Your task to perform on an android device: Open CNN.com Image 0: 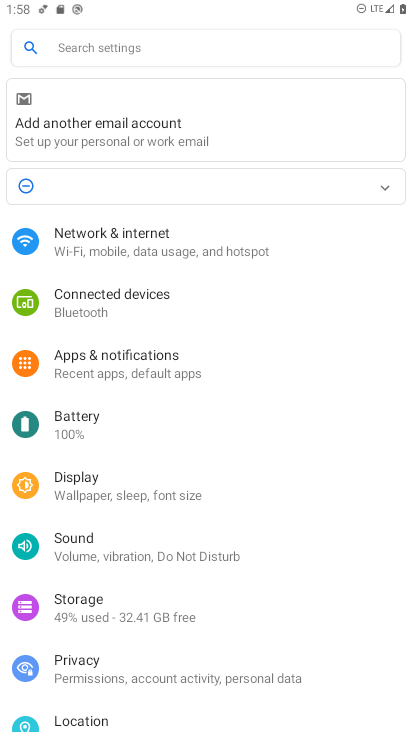
Step 0: press home button
Your task to perform on an android device: Open CNN.com Image 1: 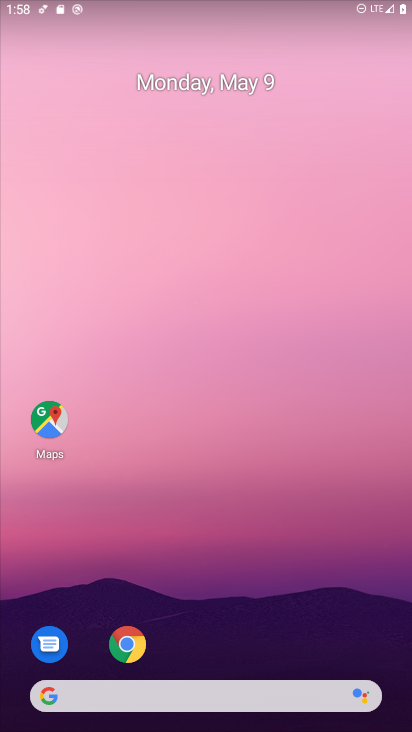
Step 1: click (119, 659)
Your task to perform on an android device: Open CNN.com Image 2: 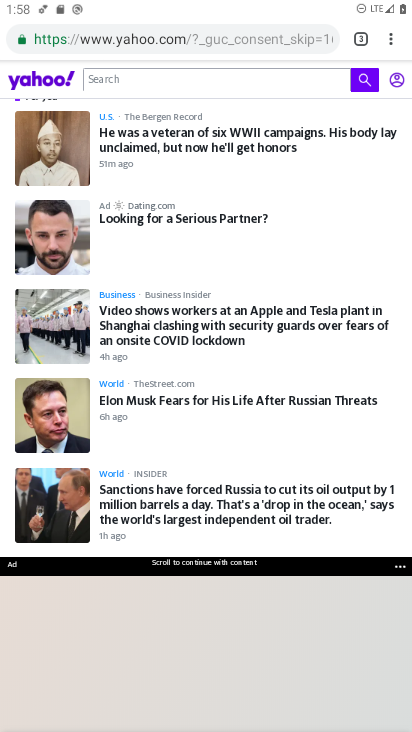
Step 2: click (191, 43)
Your task to perform on an android device: Open CNN.com Image 3: 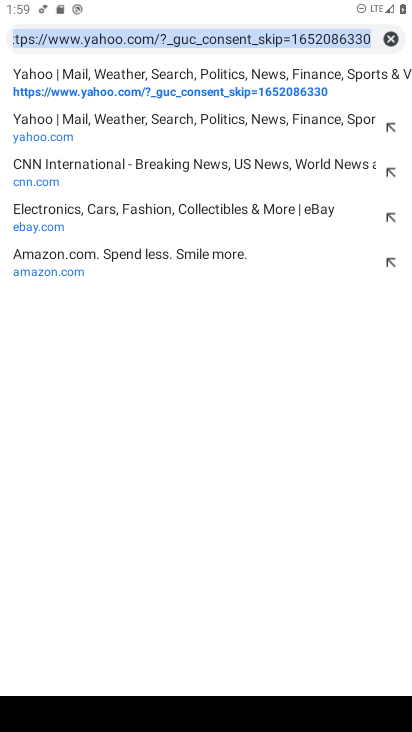
Step 3: type "www.cnn.com"
Your task to perform on an android device: Open CNN.com Image 4: 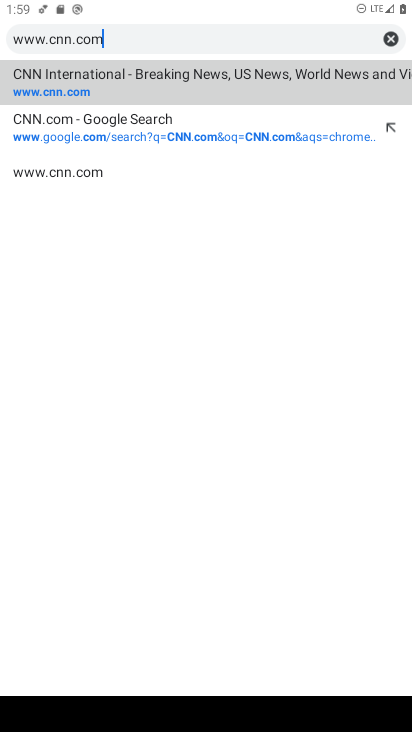
Step 4: click (79, 85)
Your task to perform on an android device: Open CNN.com Image 5: 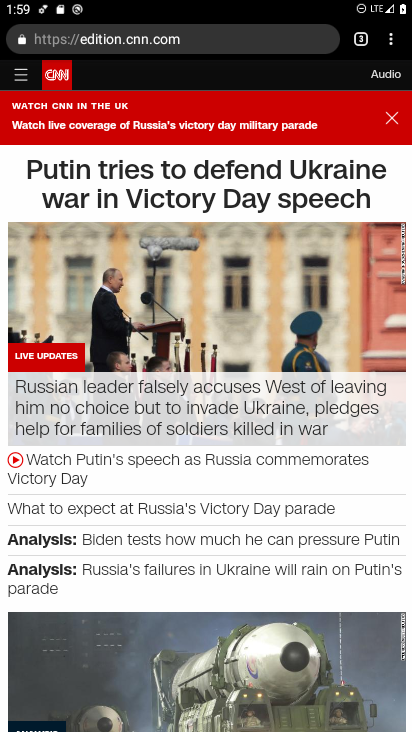
Step 5: task complete